Your task to perform on an android device: turn on location history Image 0: 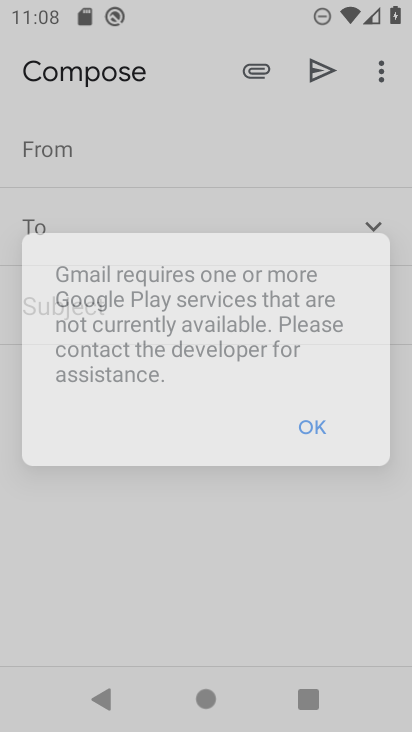
Step 0: drag from (389, 623) to (267, 79)
Your task to perform on an android device: turn on location history Image 1: 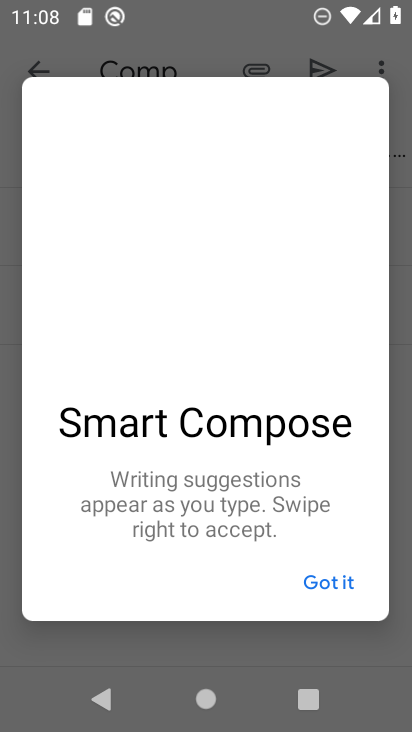
Step 1: press home button
Your task to perform on an android device: turn on location history Image 2: 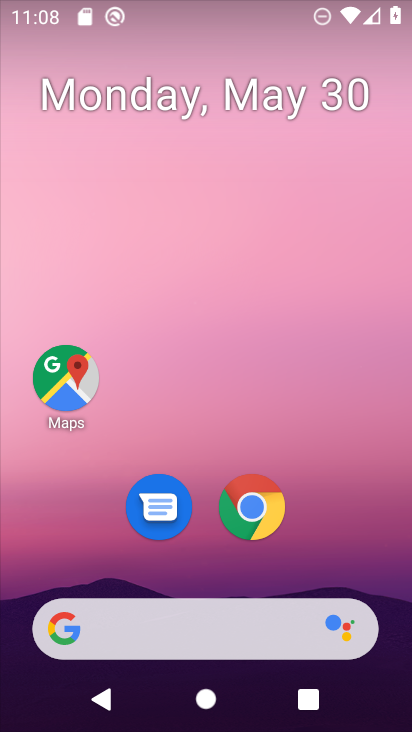
Step 2: drag from (395, 622) to (206, 64)
Your task to perform on an android device: turn on location history Image 3: 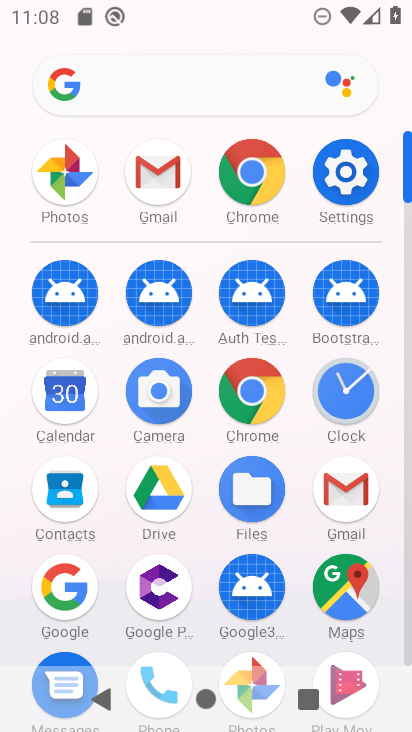
Step 3: click (317, 192)
Your task to perform on an android device: turn on location history Image 4: 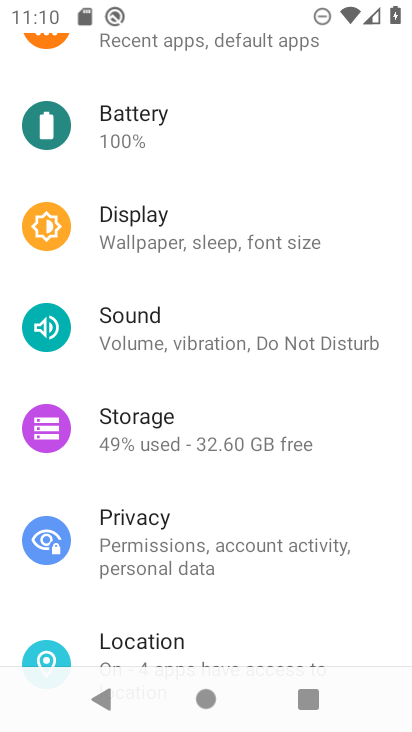
Step 4: click (177, 650)
Your task to perform on an android device: turn on location history Image 5: 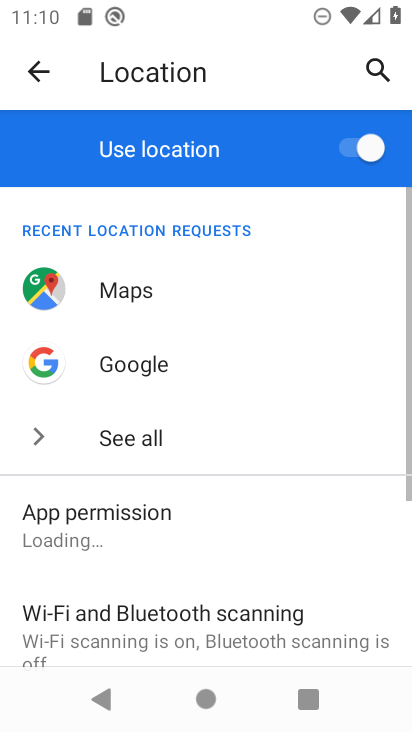
Step 5: drag from (148, 623) to (127, 195)
Your task to perform on an android device: turn on location history Image 6: 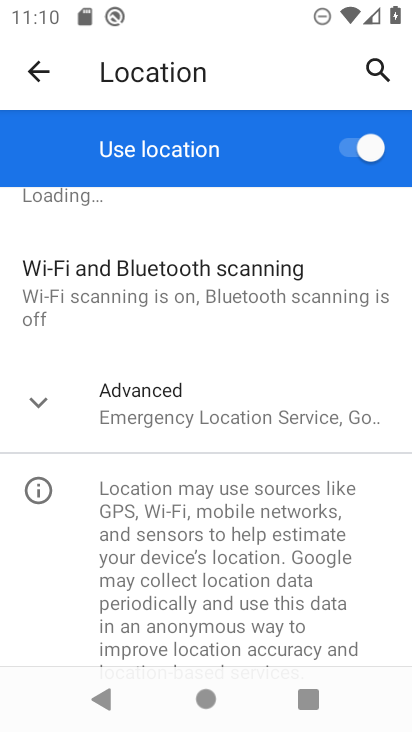
Step 6: click (160, 486)
Your task to perform on an android device: turn on location history Image 7: 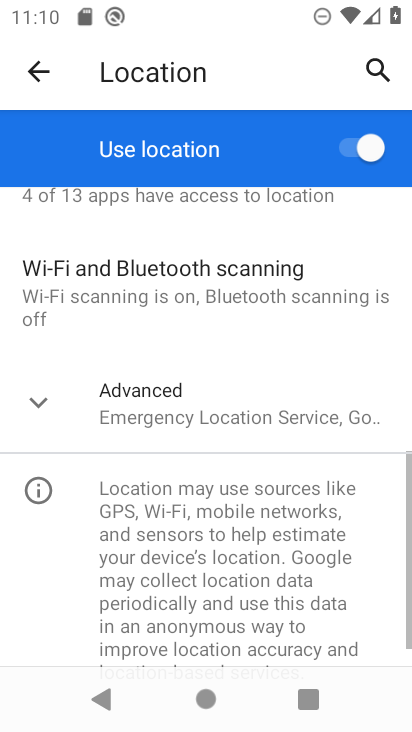
Step 7: click (158, 418)
Your task to perform on an android device: turn on location history Image 8: 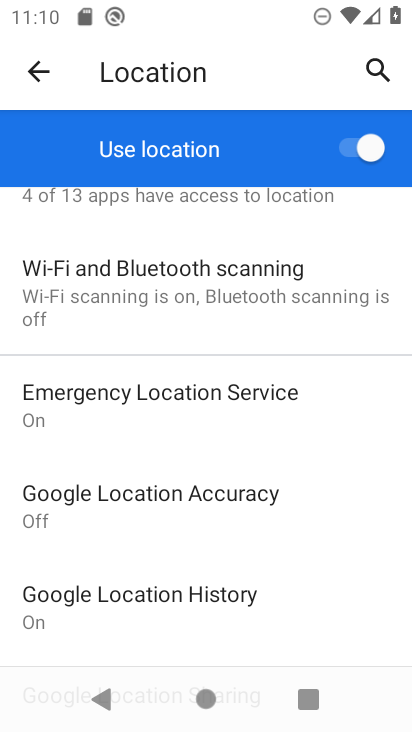
Step 8: click (214, 592)
Your task to perform on an android device: turn on location history Image 9: 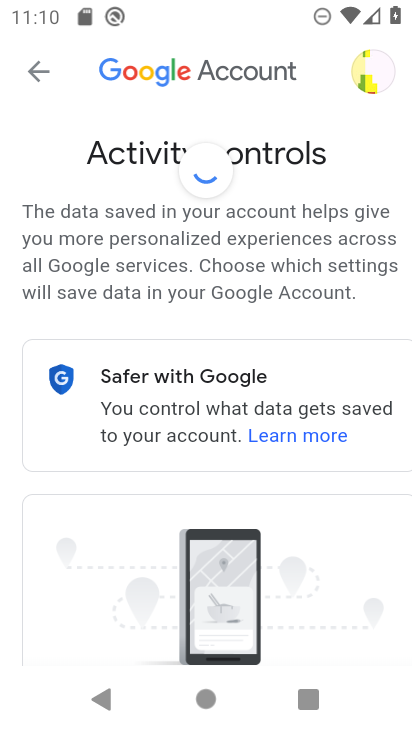
Step 9: task complete